Your task to perform on an android device: Show me recent news Image 0: 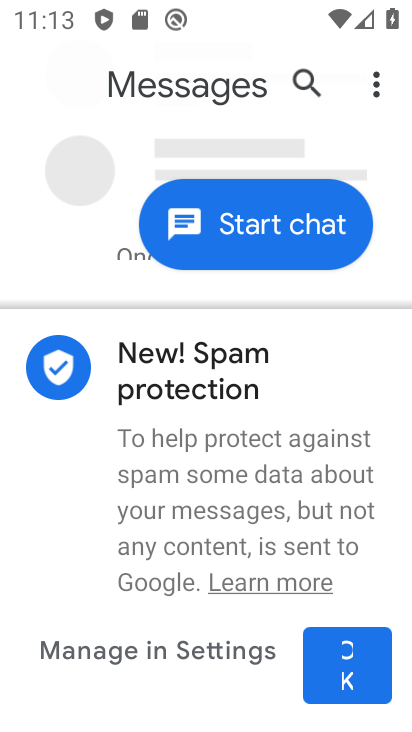
Step 0: press home button
Your task to perform on an android device: Show me recent news Image 1: 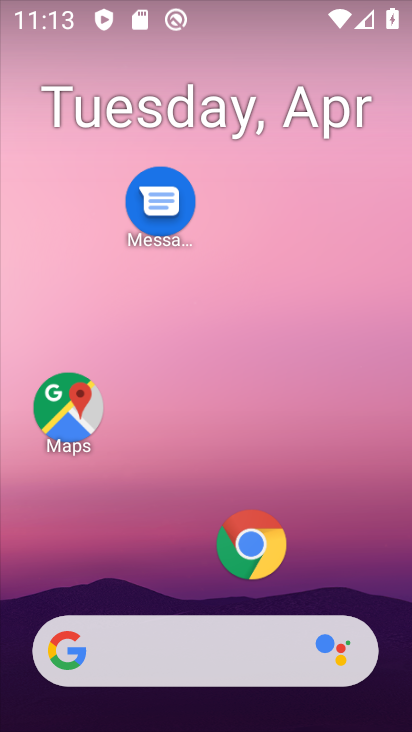
Step 1: click (185, 652)
Your task to perform on an android device: Show me recent news Image 2: 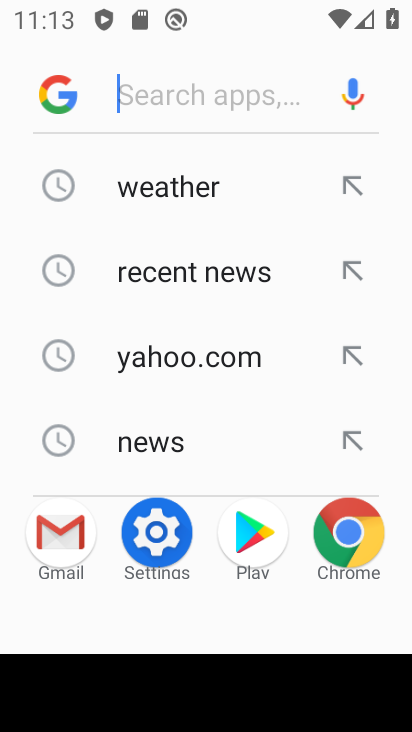
Step 2: click (219, 261)
Your task to perform on an android device: Show me recent news Image 3: 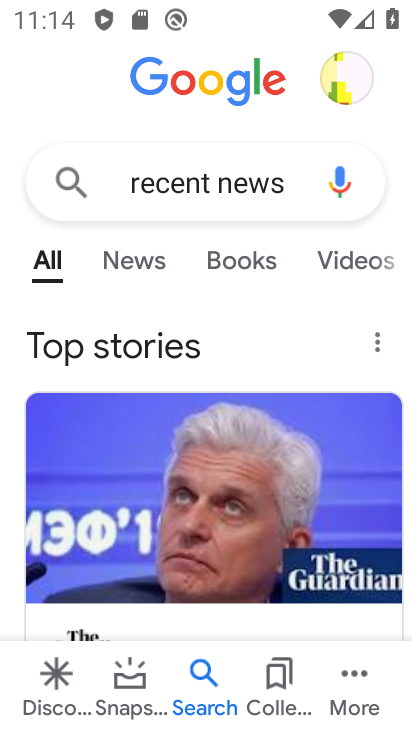
Step 3: task complete